Your task to perform on an android device: open chrome and create a bookmark for the current page Image 0: 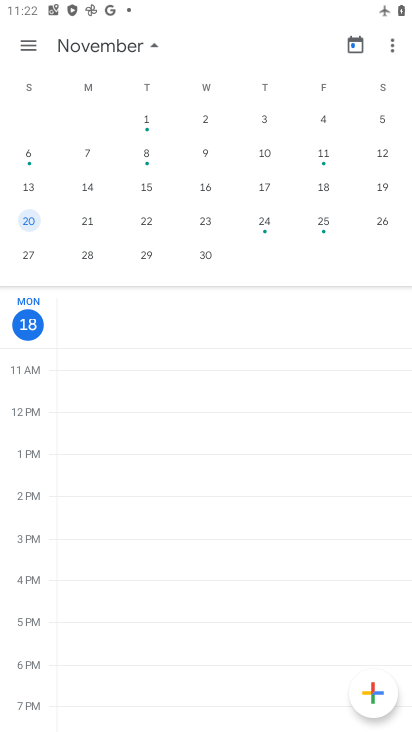
Step 0: press home button
Your task to perform on an android device: open chrome and create a bookmark for the current page Image 1: 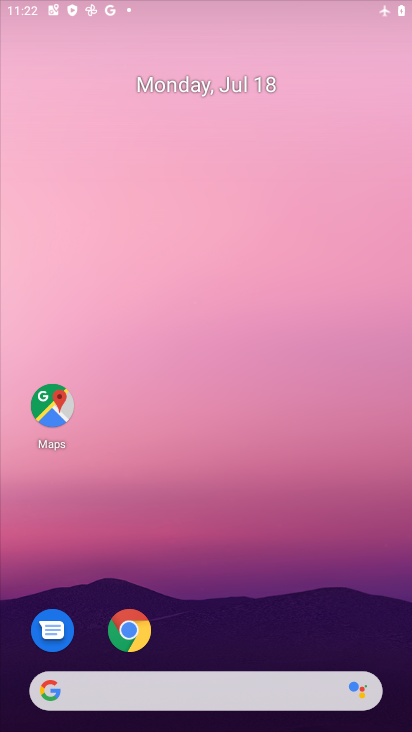
Step 1: drag from (373, 631) to (13, 302)
Your task to perform on an android device: open chrome and create a bookmark for the current page Image 2: 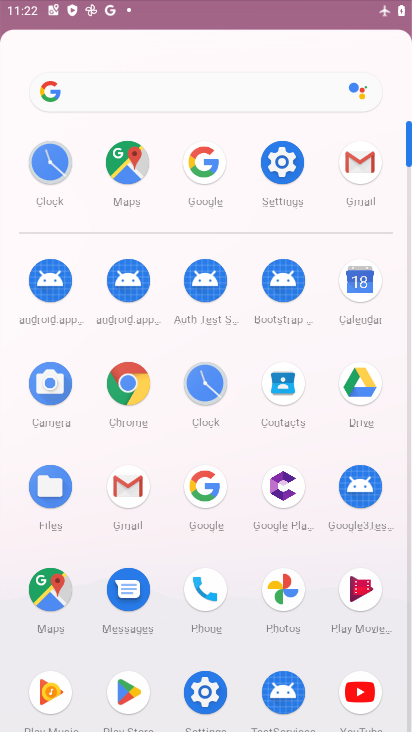
Step 2: click (133, 361)
Your task to perform on an android device: open chrome and create a bookmark for the current page Image 3: 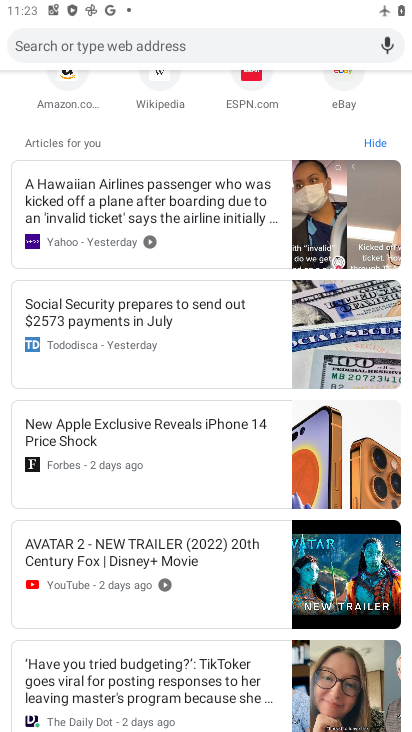
Step 3: task complete